Your task to perform on an android device: Toggle the flashlight Image 0: 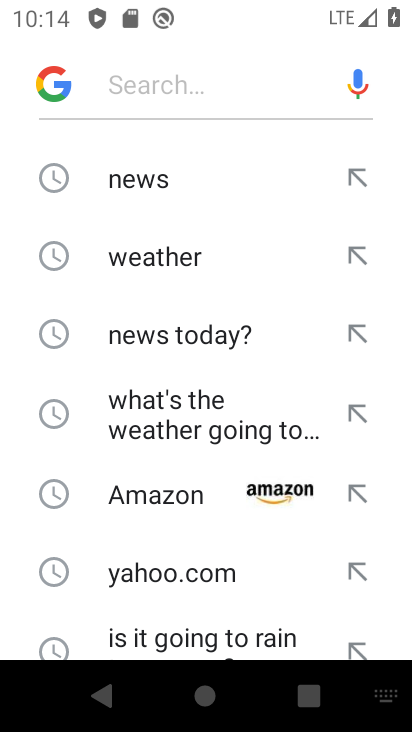
Step 0: press home button
Your task to perform on an android device: Toggle the flashlight Image 1: 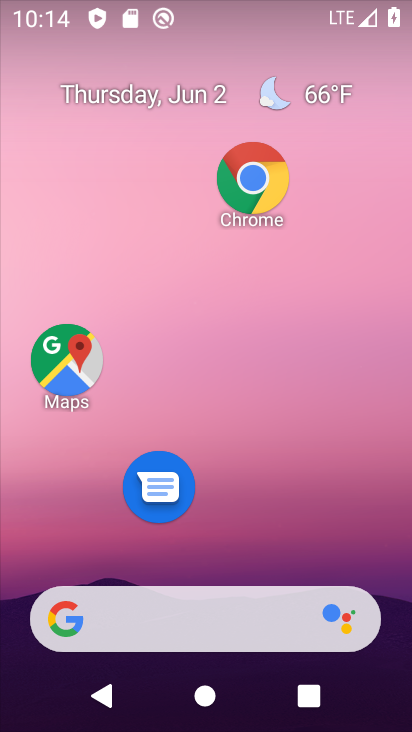
Step 1: drag from (217, 728) to (217, 110)
Your task to perform on an android device: Toggle the flashlight Image 2: 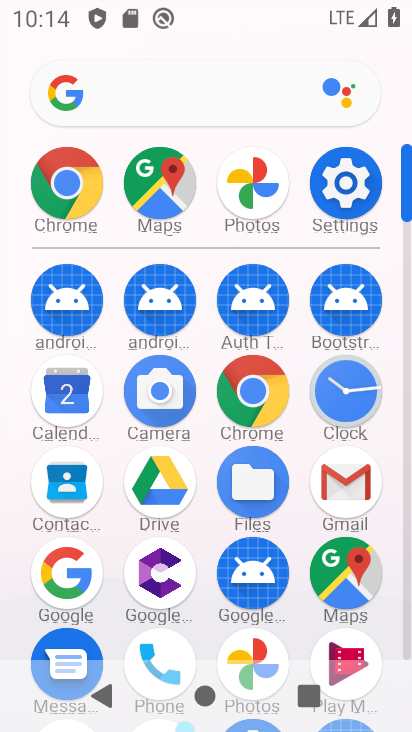
Step 2: click (346, 182)
Your task to perform on an android device: Toggle the flashlight Image 3: 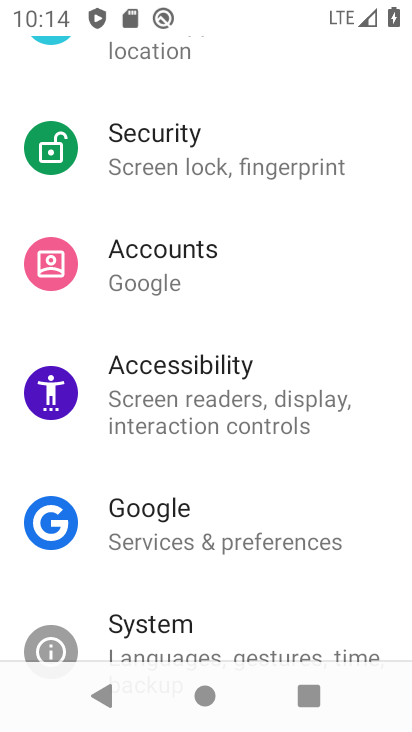
Step 3: task complete